Your task to perform on an android device: clear all cookies in the chrome app Image 0: 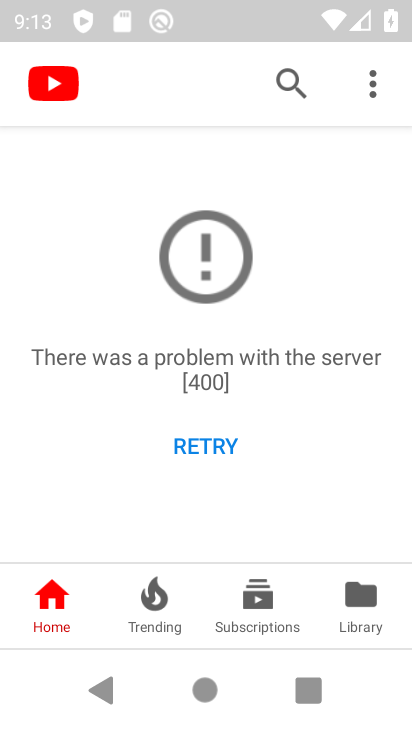
Step 0: press home button
Your task to perform on an android device: clear all cookies in the chrome app Image 1: 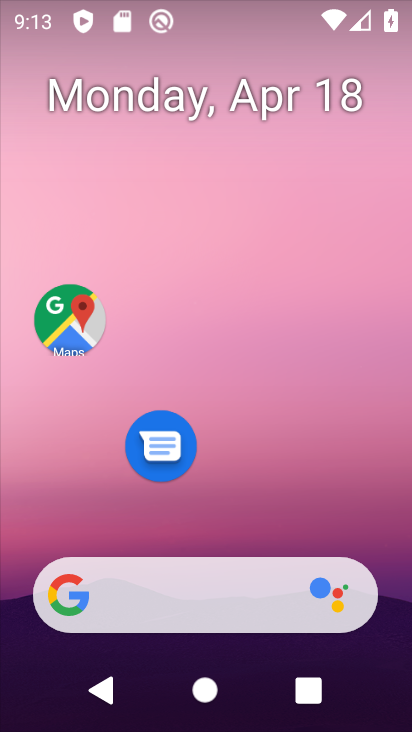
Step 1: drag from (237, 538) to (268, 10)
Your task to perform on an android device: clear all cookies in the chrome app Image 2: 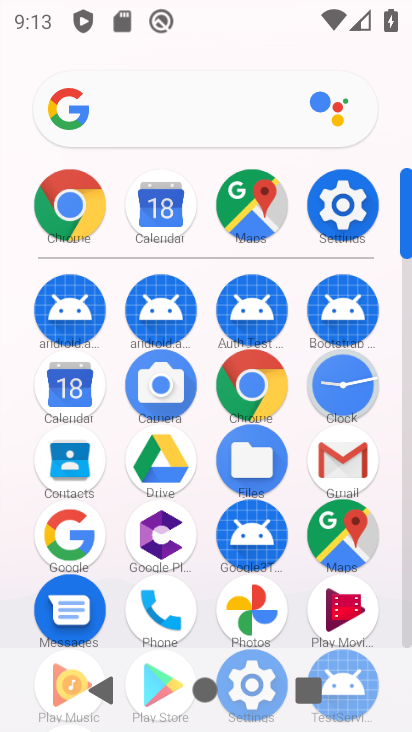
Step 2: click (246, 387)
Your task to perform on an android device: clear all cookies in the chrome app Image 3: 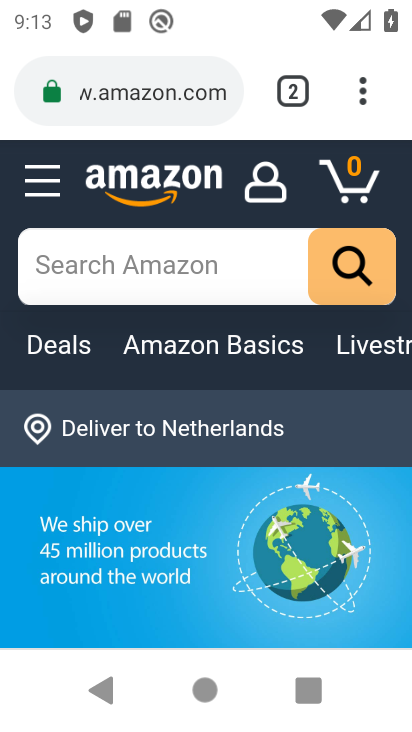
Step 3: click (279, 86)
Your task to perform on an android device: clear all cookies in the chrome app Image 4: 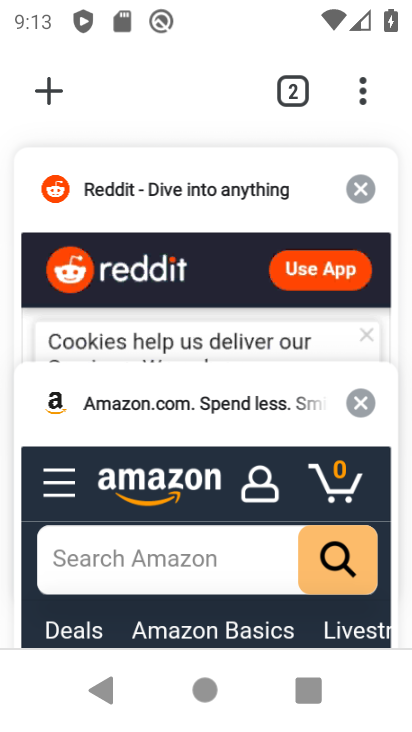
Step 4: click (359, 179)
Your task to perform on an android device: clear all cookies in the chrome app Image 5: 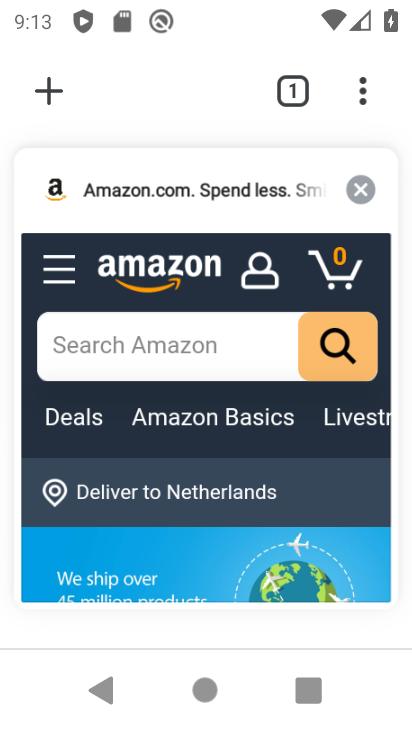
Step 5: click (359, 179)
Your task to perform on an android device: clear all cookies in the chrome app Image 6: 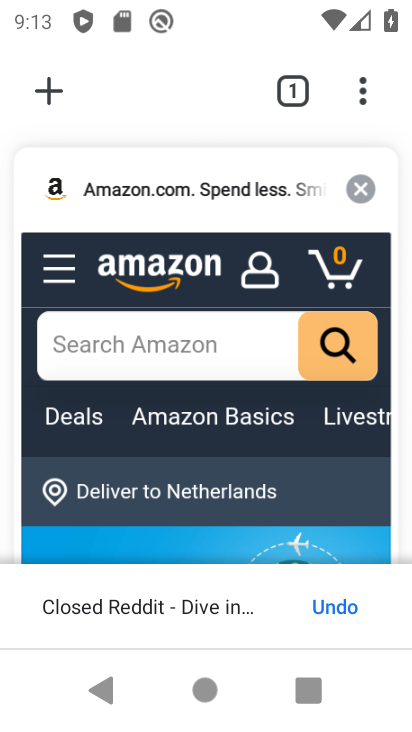
Step 6: click (50, 95)
Your task to perform on an android device: clear all cookies in the chrome app Image 7: 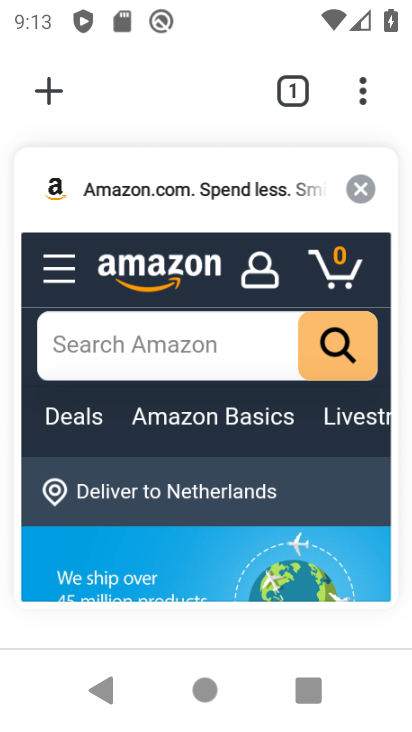
Step 7: click (358, 182)
Your task to perform on an android device: clear all cookies in the chrome app Image 8: 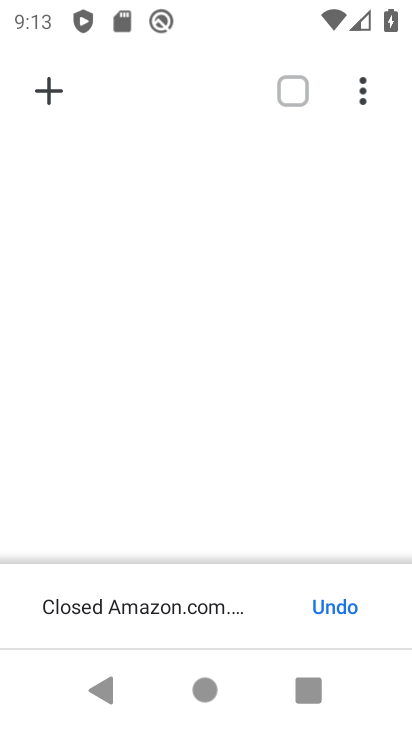
Step 8: click (49, 88)
Your task to perform on an android device: clear all cookies in the chrome app Image 9: 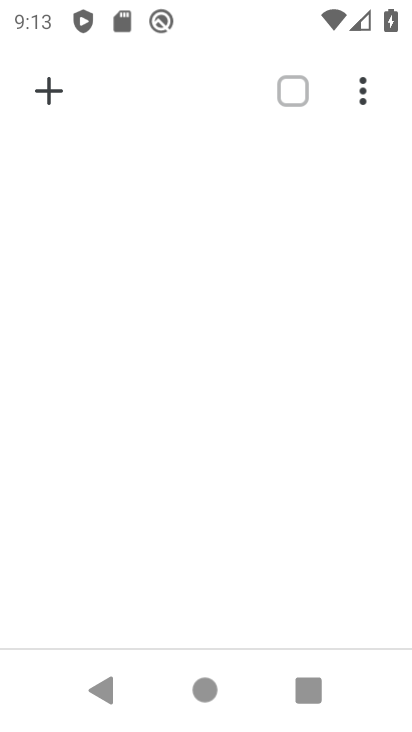
Step 9: click (49, 88)
Your task to perform on an android device: clear all cookies in the chrome app Image 10: 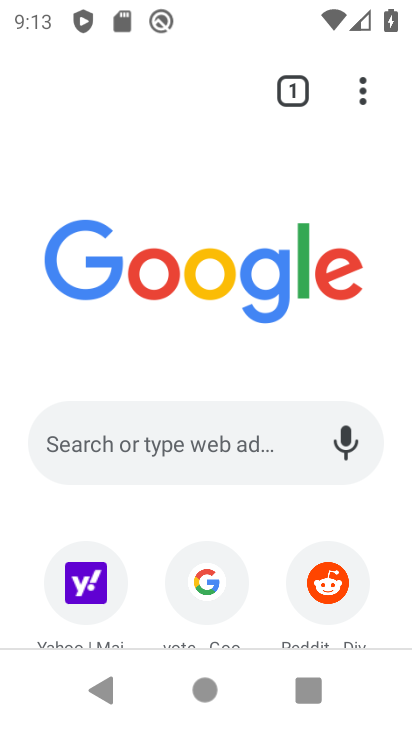
Step 10: click (368, 86)
Your task to perform on an android device: clear all cookies in the chrome app Image 11: 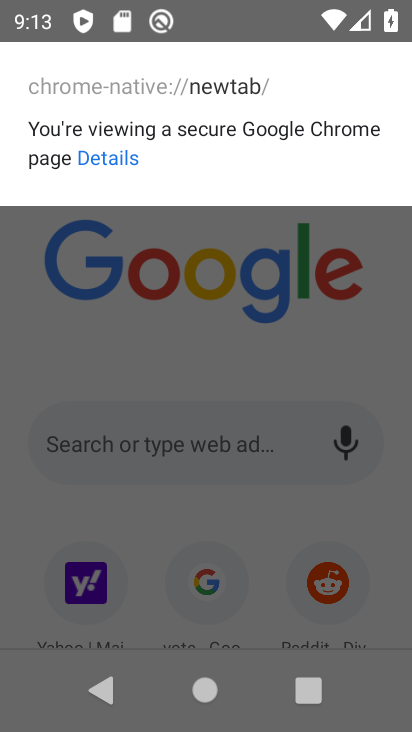
Step 11: click (161, 275)
Your task to perform on an android device: clear all cookies in the chrome app Image 12: 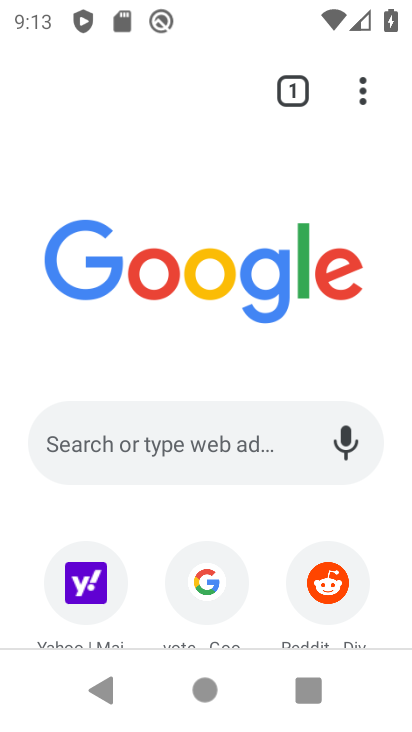
Step 12: click (357, 95)
Your task to perform on an android device: clear all cookies in the chrome app Image 13: 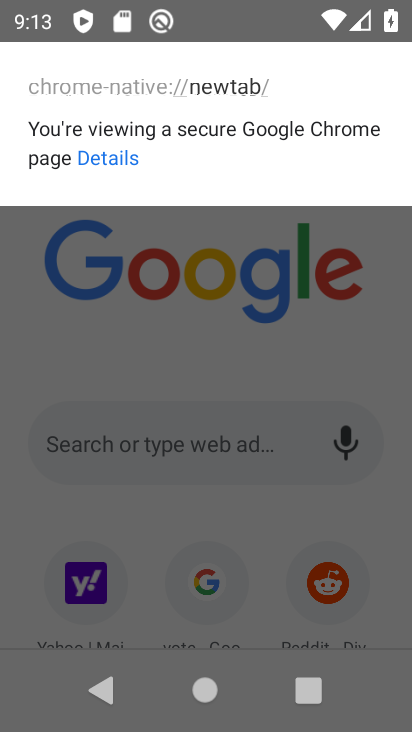
Step 13: click (170, 274)
Your task to perform on an android device: clear all cookies in the chrome app Image 14: 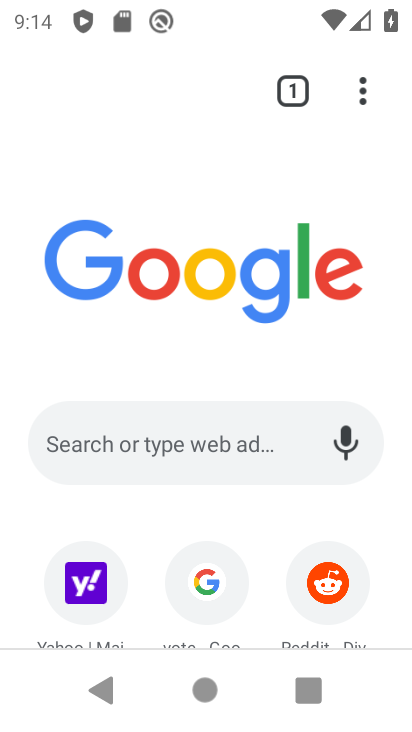
Step 14: click (361, 96)
Your task to perform on an android device: clear all cookies in the chrome app Image 15: 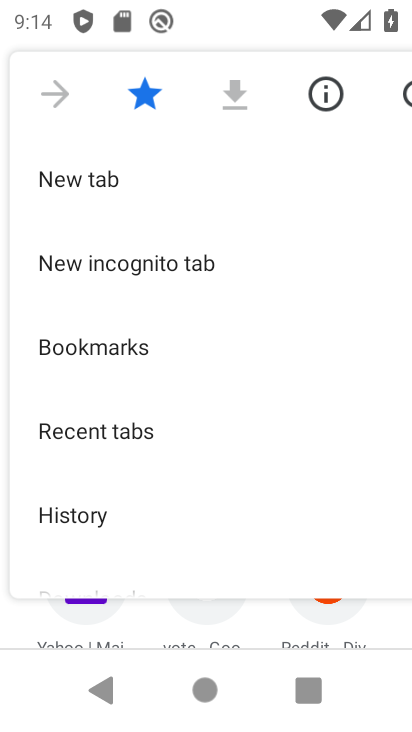
Step 15: click (98, 502)
Your task to perform on an android device: clear all cookies in the chrome app Image 16: 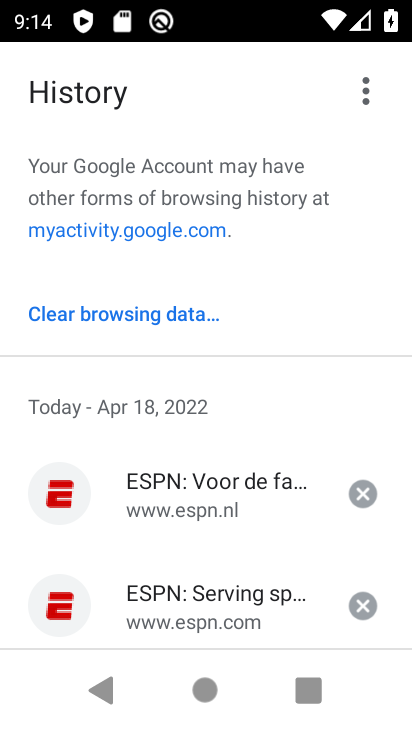
Step 16: click (124, 311)
Your task to perform on an android device: clear all cookies in the chrome app Image 17: 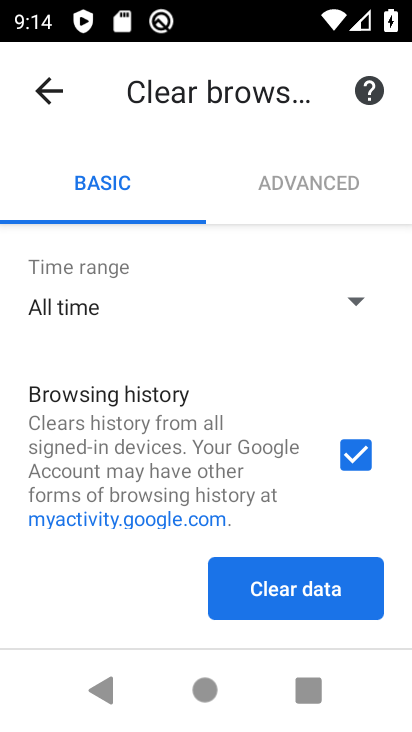
Step 17: click (358, 448)
Your task to perform on an android device: clear all cookies in the chrome app Image 18: 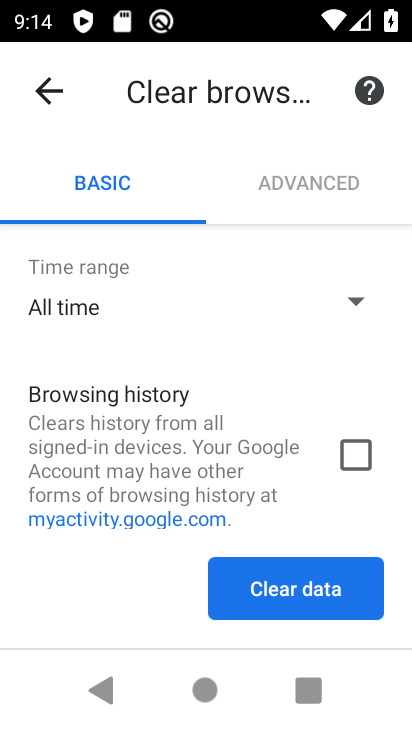
Step 18: drag from (213, 507) to (208, 209)
Your task to perform on an android device: clear all cookies in the chrome app Image 19: 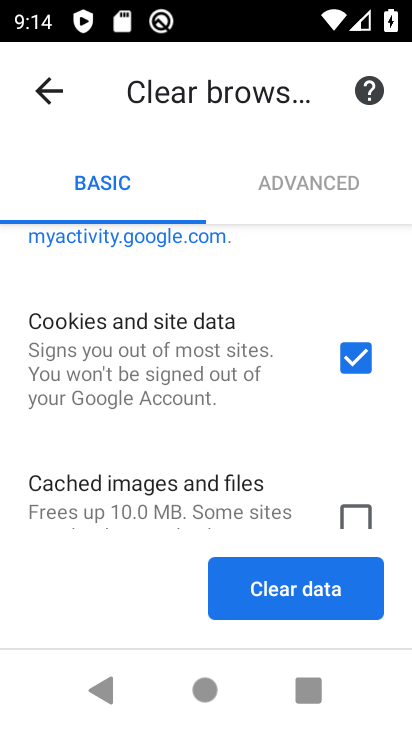
Step 19: click (288, 589)
Your task to perform on an android device: clear all cookies in the chrome app Image 20: 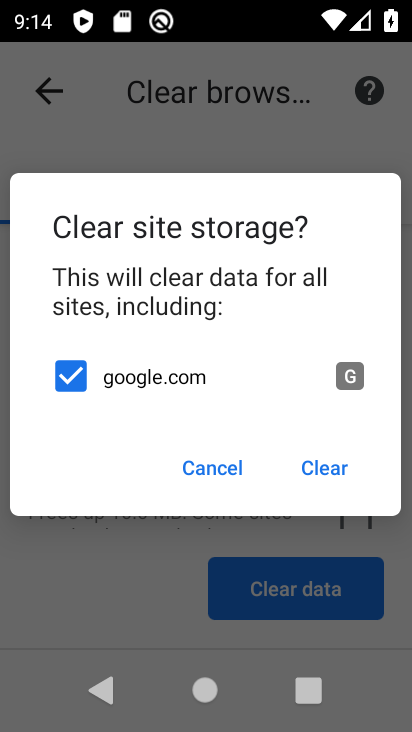
Step 20: click (330, 469)
Your task to perform on an android device: clear all cookies in the chrome app Image 21: 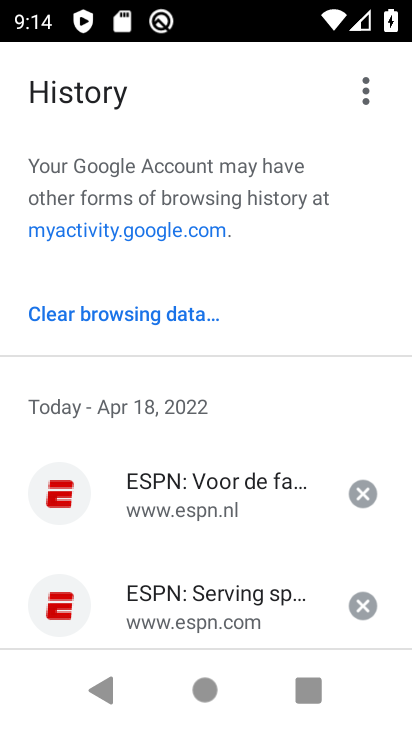
Step 21: task complete